Your task to perform on an android device: delete browsing data in the chrome app Image 0: 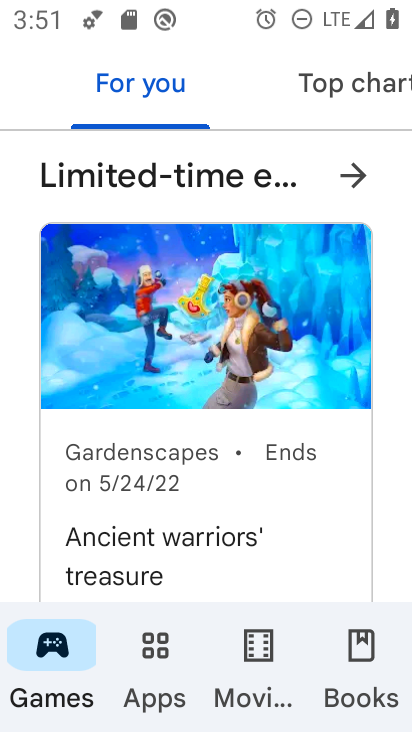
Step 0: press home button
Your task to perform on an android device: delete browsing data in the chrome app Image 1: 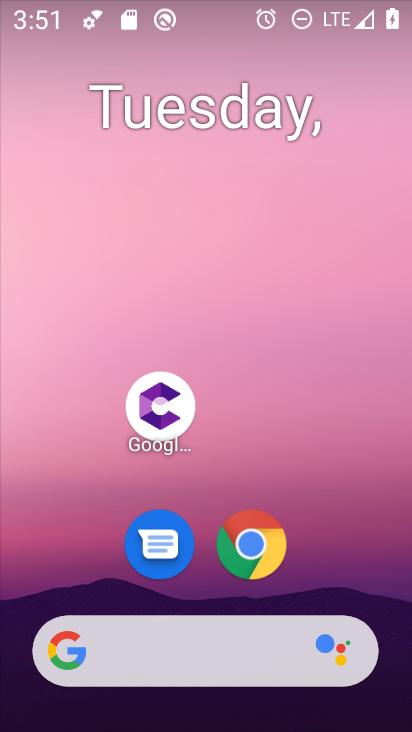
Step 1: drag from (359, 546) to (324, 105)
Your task to perform on an android device: delete browsing data in the chrome app Image 2: 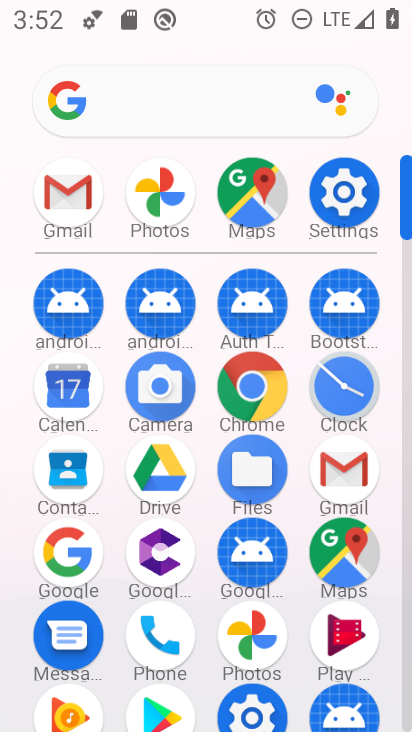
Step 2: click (263, 400)
Your task to perform on an android device: delete browsing data in the chrome app Image 3: 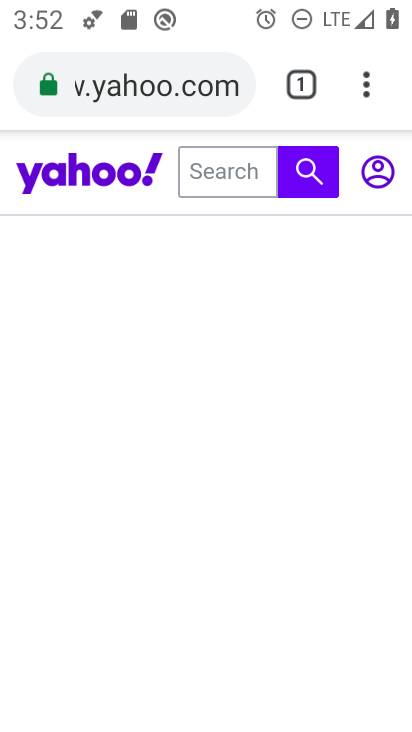
Step 3: click (363, 89)
Your task to perform on an android device: delete browsing data in the chrome app Image 4: 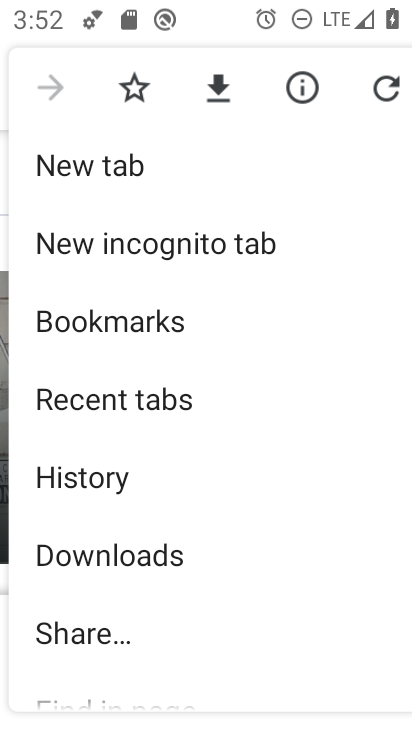
Step 4: drag from (317, 536) to (322, 414)
Your task to perform on an android device: delete browsing data in the chrome app Image 5: 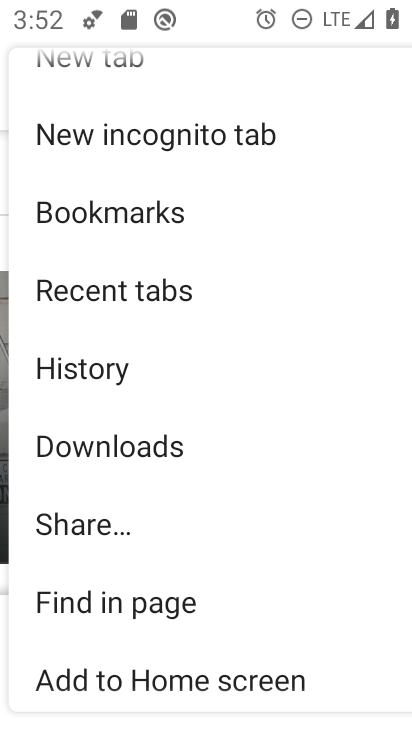
Step 5: drag from (322, 566) to (338, 407)
Your task to perform on an android device: delete browsing data in the chrome app Image 6: 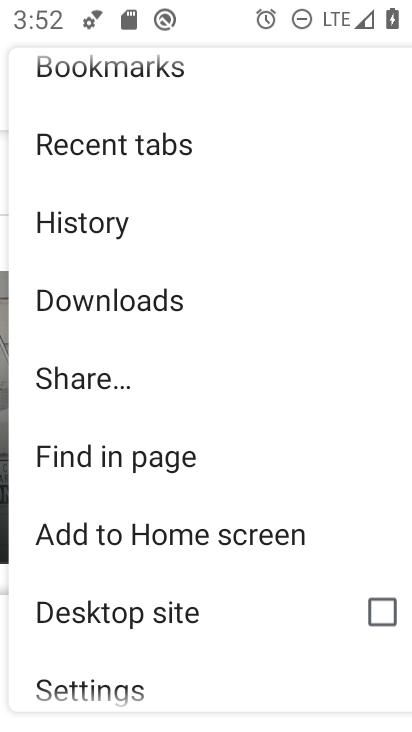
Step 6: drag from (323, 588) to (329, 433)
Your task to perform on an android device: delete browsing data in the chrome app Image 7: 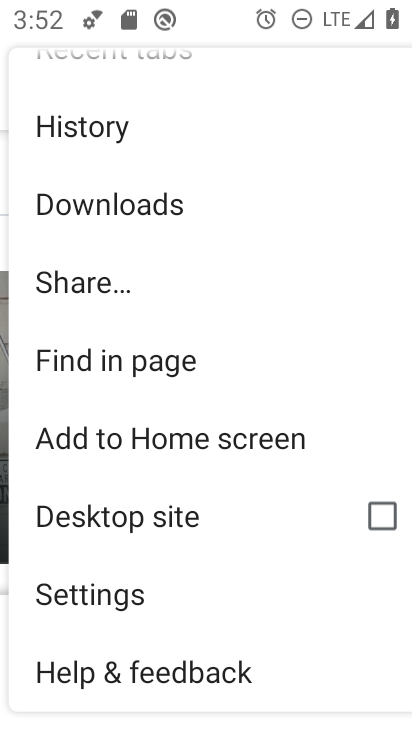
Step 7: drag from (283, 542) to (281, 450)
Your task to perform on an android device: delete browsing data in the chrome app Image 8: 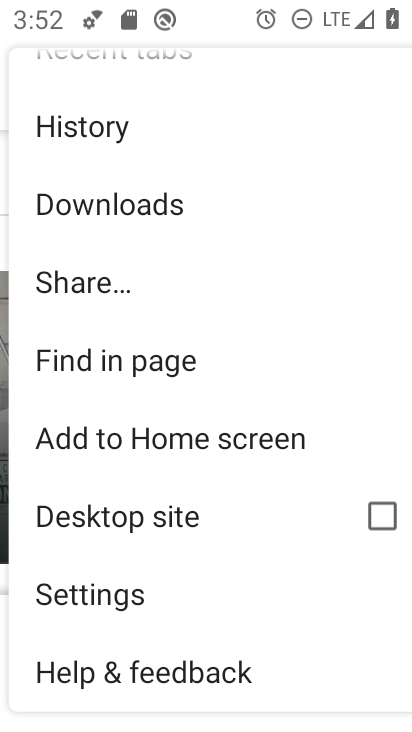
Step 8: click (139, 596)
Your task to perform on an android device: delete browsing data in the chrome app Image 9: 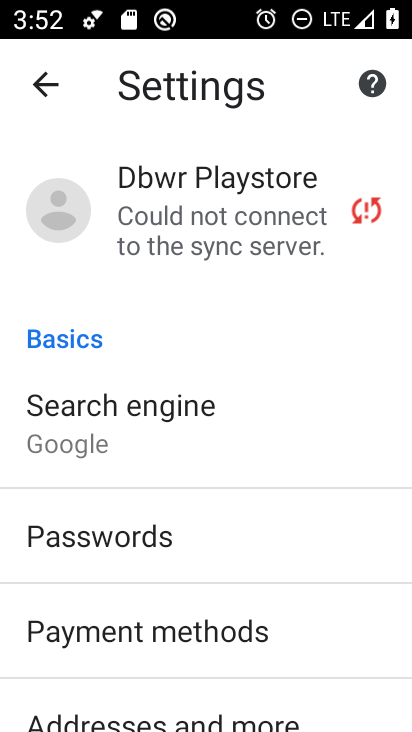
Step 9: drag from (328, 615) to (324, 518)
Your task to perform on an android device: delete browsing data in the chrome app Image 10: 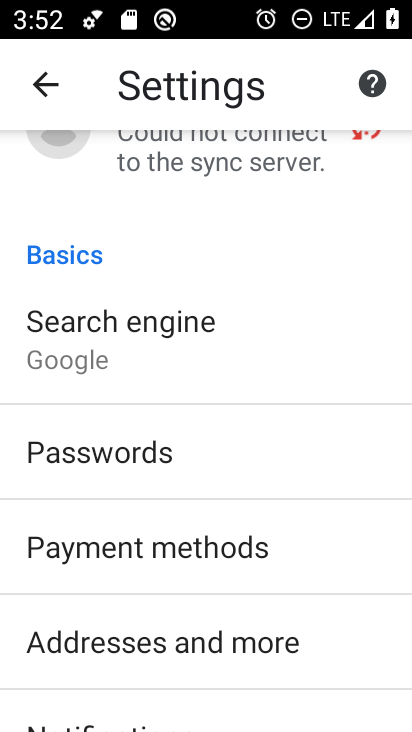
Step 10: drag from (323, 646) to (329, 501)
Your task to perform on an android device: delete browsing data in the chrome app Image 11: 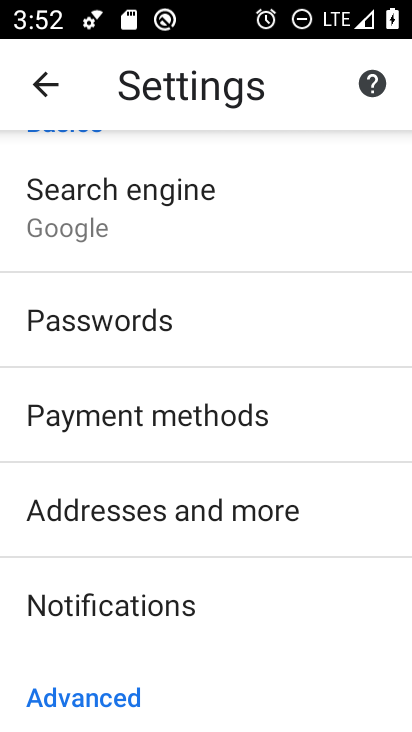
Step 11: drag from (314, 659) to (337, 513)
Your task to perform on an android device: delete browsing data in the chrome app Image 12: 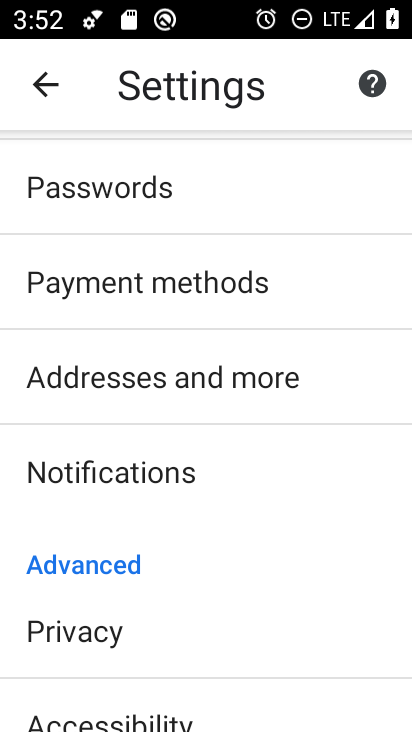
Step 12: drag from (311, 681) to (323, 551)
Your task to perform on an android device: delete browsing data in the chrome app Image 13: 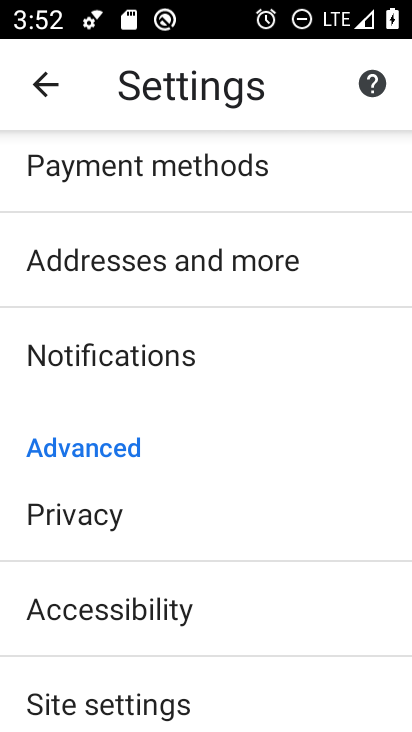
Step 13: drag from (287, 593) to (281, 547)
Your task to perform on an android device: delete browsing data in the chrome app Image 14: 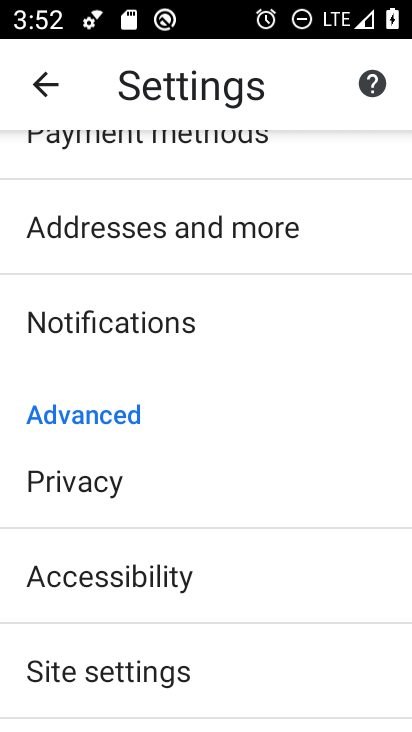
Step 14: drag from (290, 665) to (316, 527)
Your task to perform on an android device: delete browsing data in the chrome app Image 15: 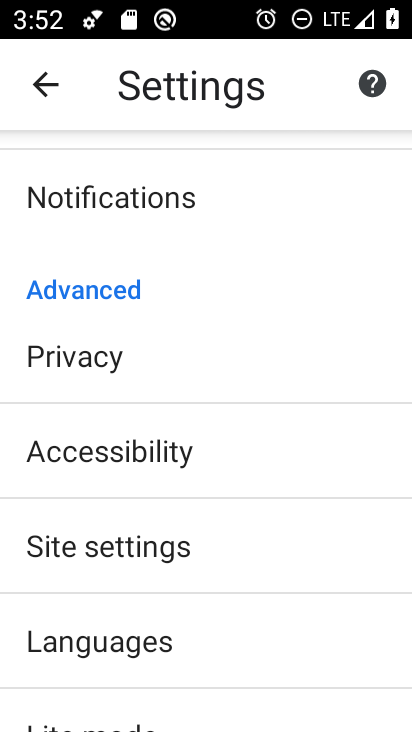
Step 15: drag from (305, 685) to (305, 549)
Your task to perform on an android device: delete browsing data in the chrome app Image 16: 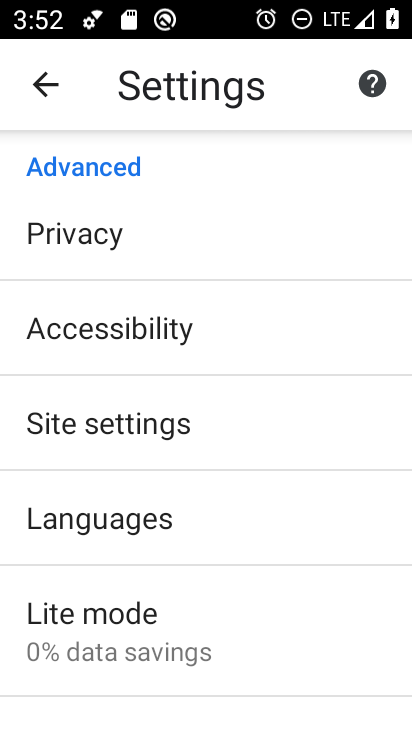
Step 16: drag from (303, 670) to (303, 537)
Your task to perform on an android device: delete browsing data in the chrome app Image 17: 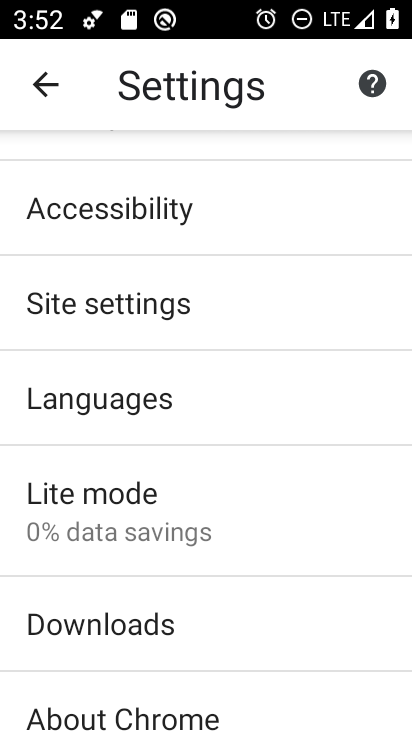
Step 17: drag from (287, 694) to (301, 581)
Your task to perform on an android device: delete browsing data in the chrome app Image 18: 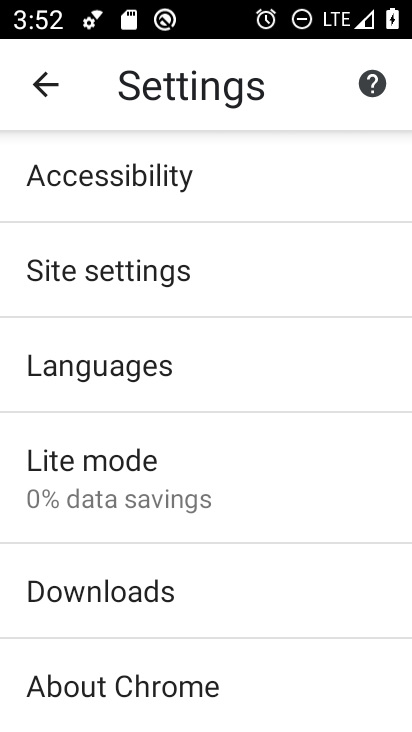
Step 18: drag from (321, 644) to (331, 488)
Your task to perform on an android device: delete browsing data in the chrome app Image 19: 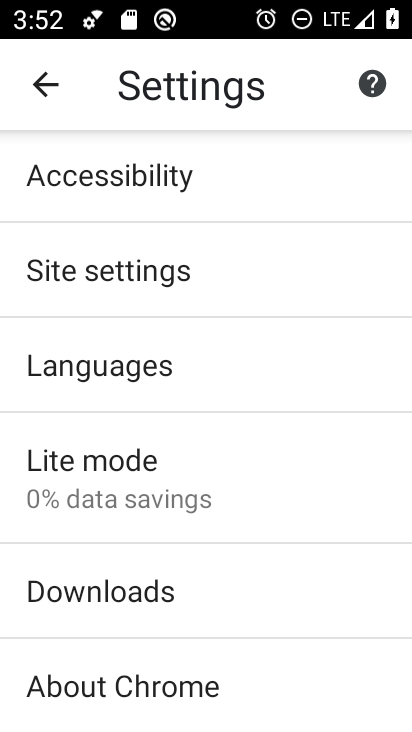
Step 19: drag from (307, 358) to (304, 490)
Your task to perform on an android device: delete browsing data in the chrome app Image 20: 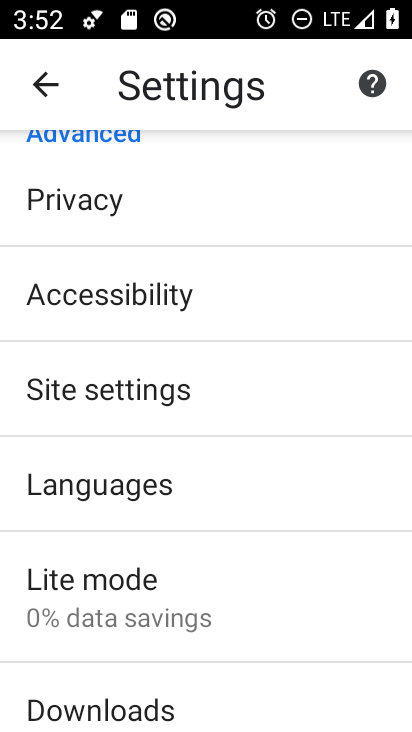
Step 20: drag from (309, 356) to (302, 451)
Your task to perform on an android device: delete browsing data in the chrome app Image 21: 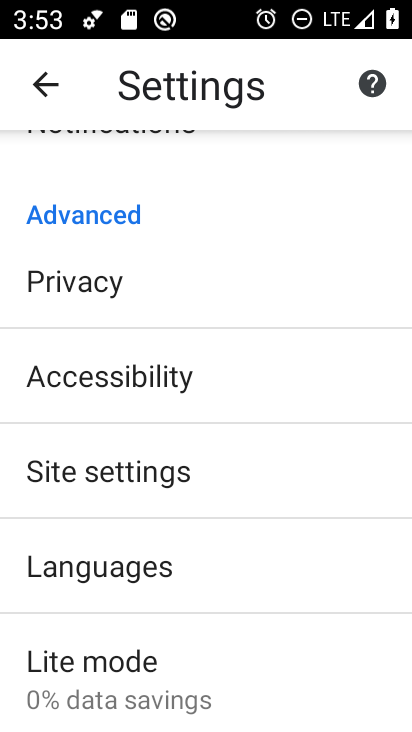
Step 21: drag from (269, 315) to (268, 389)
Your task to perform on an android device: delete browsing data in the chrome app Image 22: 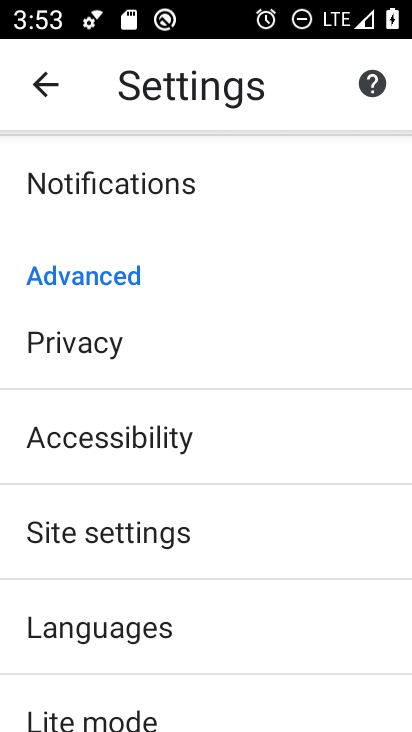
Step 22: click (153, 368)
Your task to perform on an android device: delete browsing data in the chrome app Image 23: 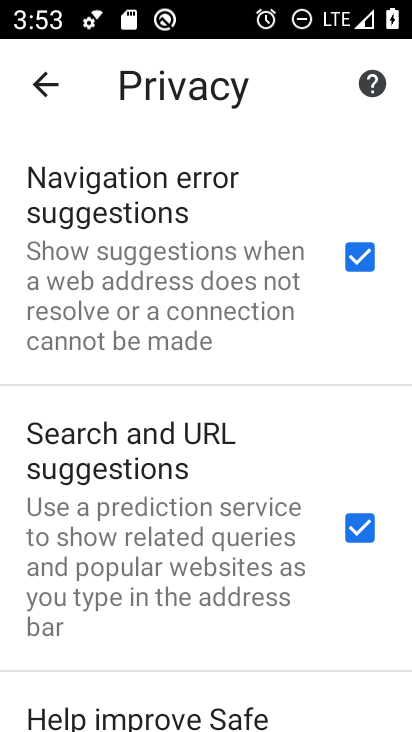
Step 23: drag from (268, 623) to (278, 440)
Your task to perform on an android device: delete browsing data in the chrome app Image 24: 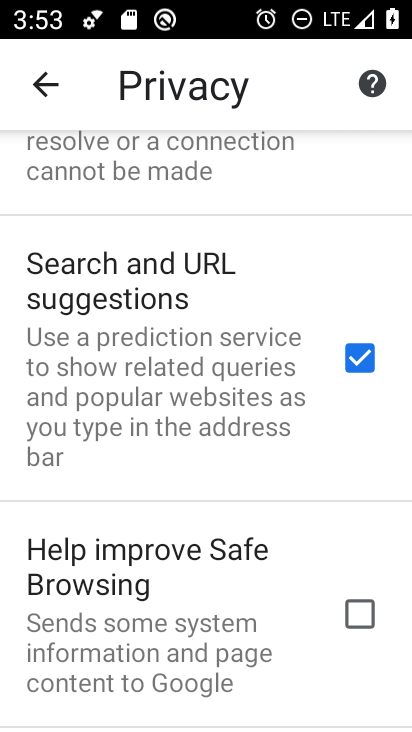
Step 24: drag from (285, 619) to (290, 461)
Your task to perform on an android device: delete browsing data in the chrome app Image 25: 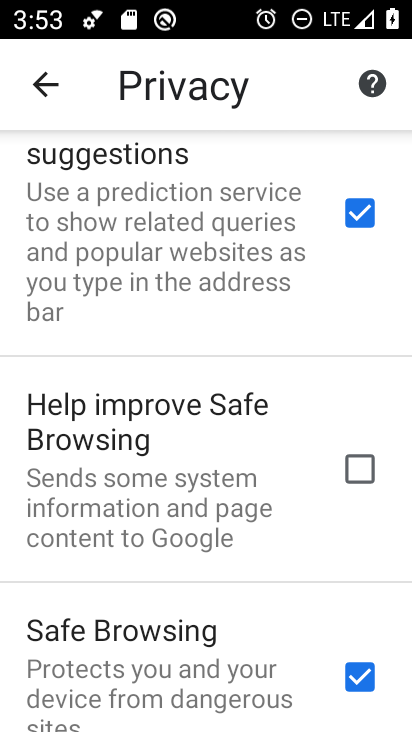
Step 25: drag from (277, 640) to (292, 515)
Your task to perform on an android device: delete browsing data in the chrome app Image 26: 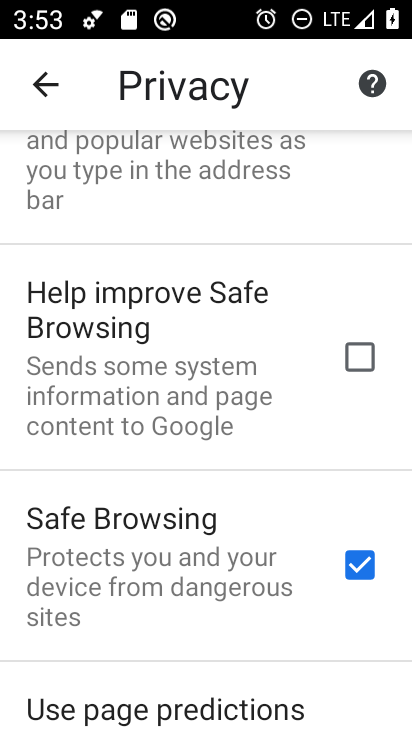
Step 26: drag from (263, 637) to (267, 543)
Your task to perform on an android device: delete browsing data in the chrome app Image 27: 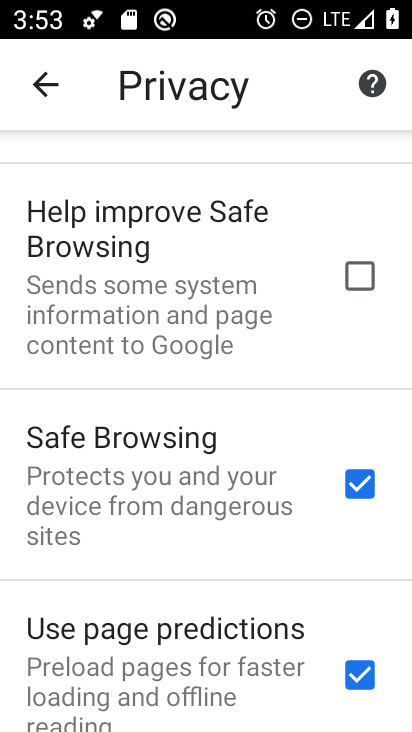
Step 27: drag from (236, 636) to (239, 496)
Your task to perform on an android device: delete browsing data in the chrome app Image 28: 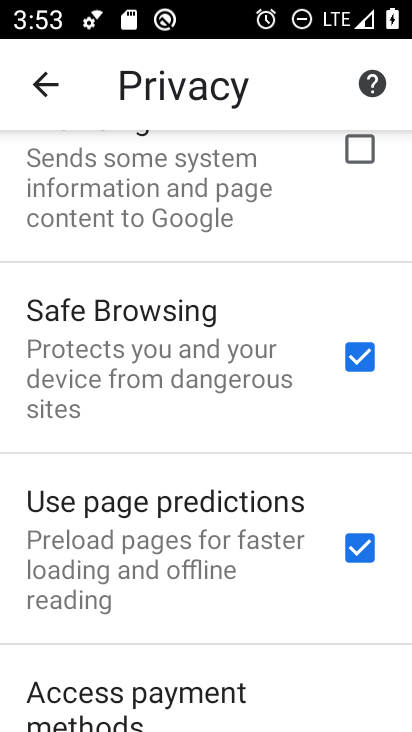
Step 28: drag from (236, 624) to (256, 542)
Your task to perform on an android device: delete browsing data in the chrome app Image 29: 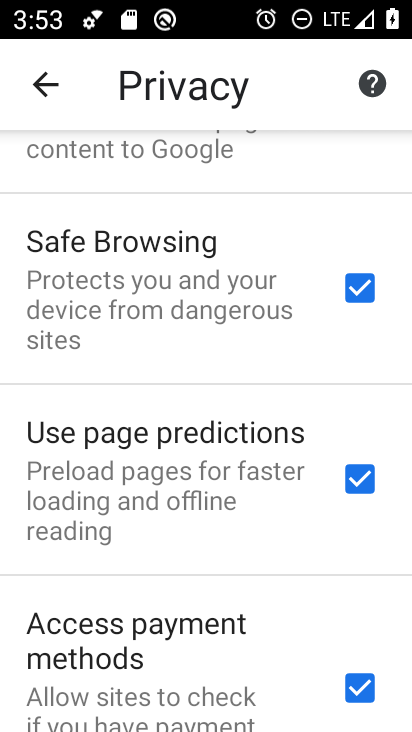
Step 29: drag from (259, 667) to (267, 599)
Your task to perform on an android device: delete browsing data in the chrome app Image 30: 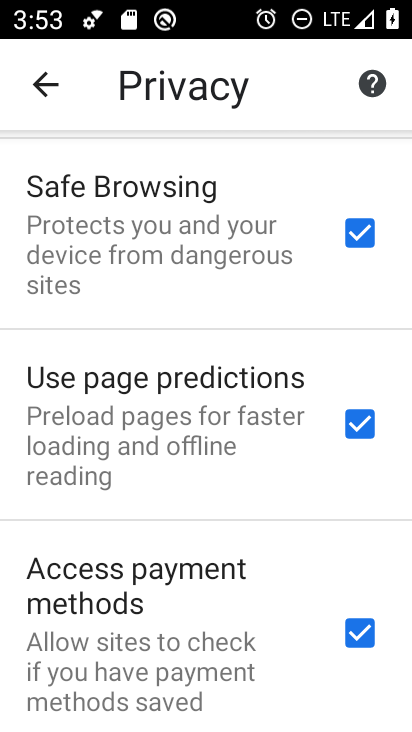
Step 30: drag from (270, 672) to (271, 563)
Your task to perform on an android device: delete browsing data in the chrome app Image 31: 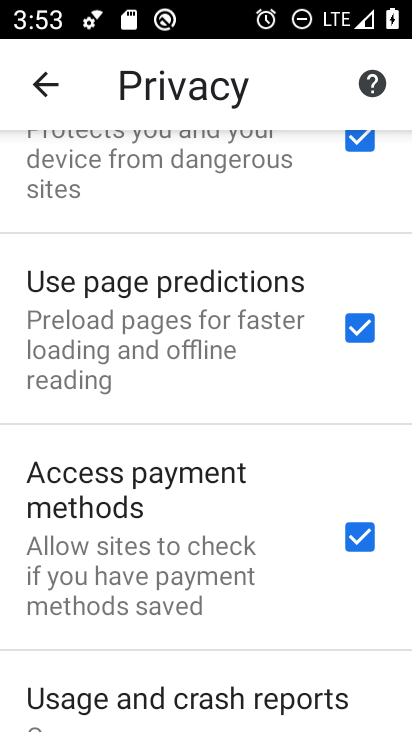
Step 31: drag from (266, 675) to (274, 528)
Your task to perform on an android device: delete browsing data in the chrome app Image 32: 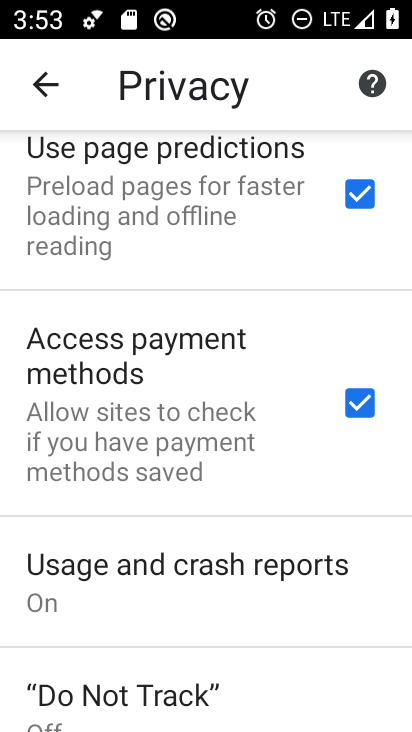
Step 32: drag from (298, 666) to (316, 525)
Your task to perform on an android device: delete browsing data in the chrome app Image 33: 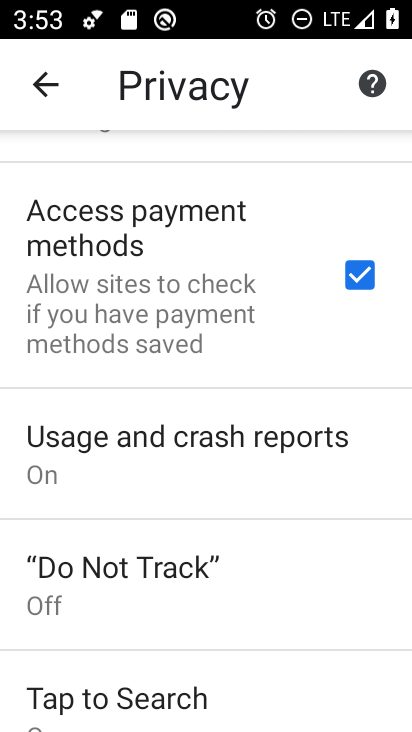
Step 33: drag from (325, 679) to (330, 605)
Your task to perform on an android device: delete browsing data in the chrome app Image 34: 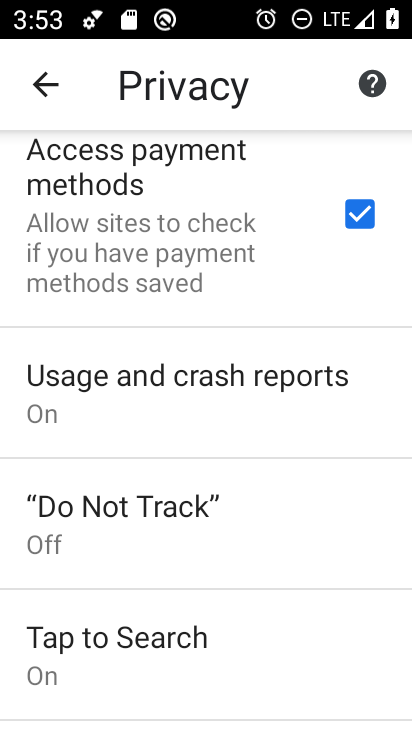
Step 34: drag from (314, 664) to (320, 539)
Your task to perform on an android device: delete browsing data in the chrome app Image 35: 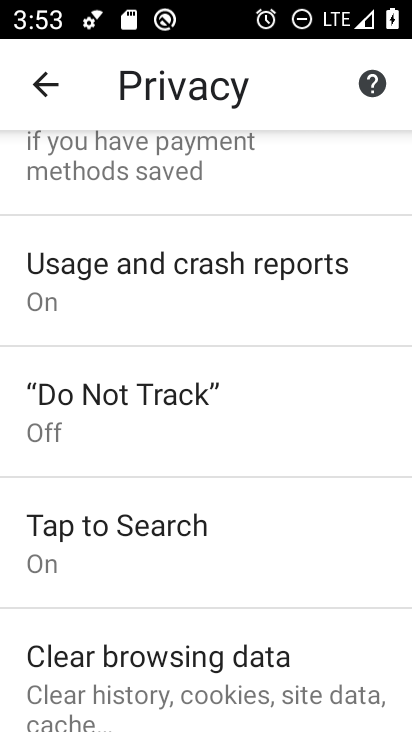
Step 35: drag from (315, 684) to (314, 577)
Your task to perform on an android device: delete browsing data in the chrome app Image 36: 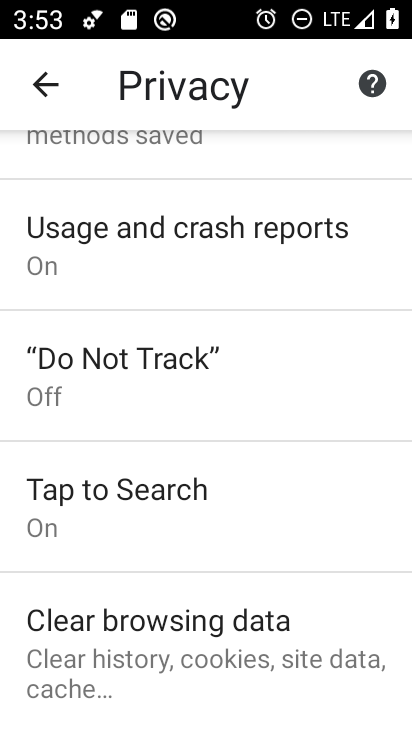
Step 36: click (254, 641)
Your task to perform on an android device: delete browsing data in the chrome app Image 37: 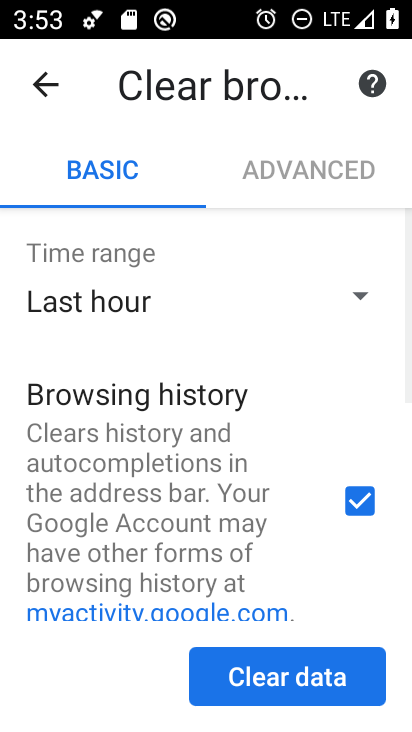
Step 37: click (297, 682)
Your task to perform on an android device: delete browsing data in the chrome app Image 38: 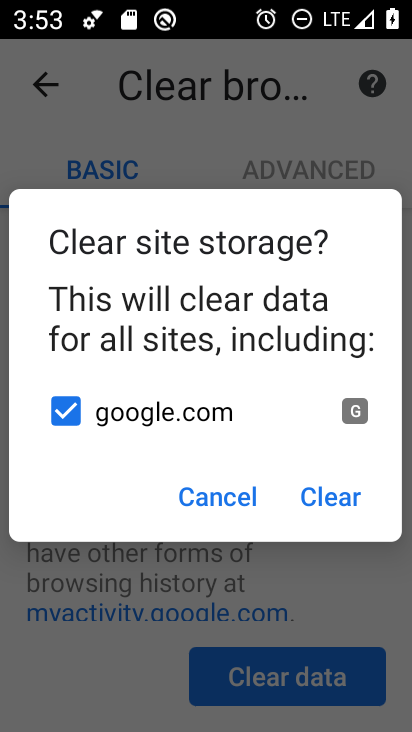
Step 38: click (302, 513)
Your task to perform on an android device: delete browsing data in the chrome app Image 39: 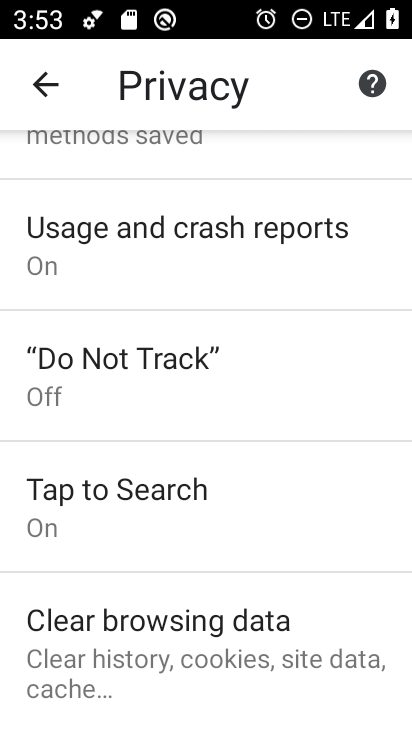
Step 39: task complete